Your task to perform on an android device: turn off airplane mode Image 0: 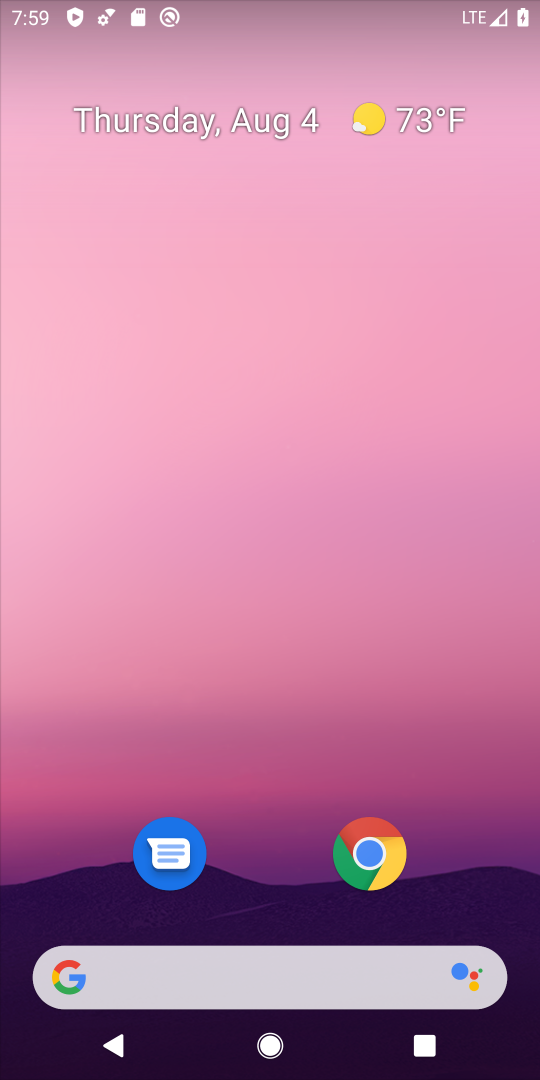
Step 0: drag from (321, 584) to (342, 433)
Your task to perform on an android device: turn off airplane mode Image 1: 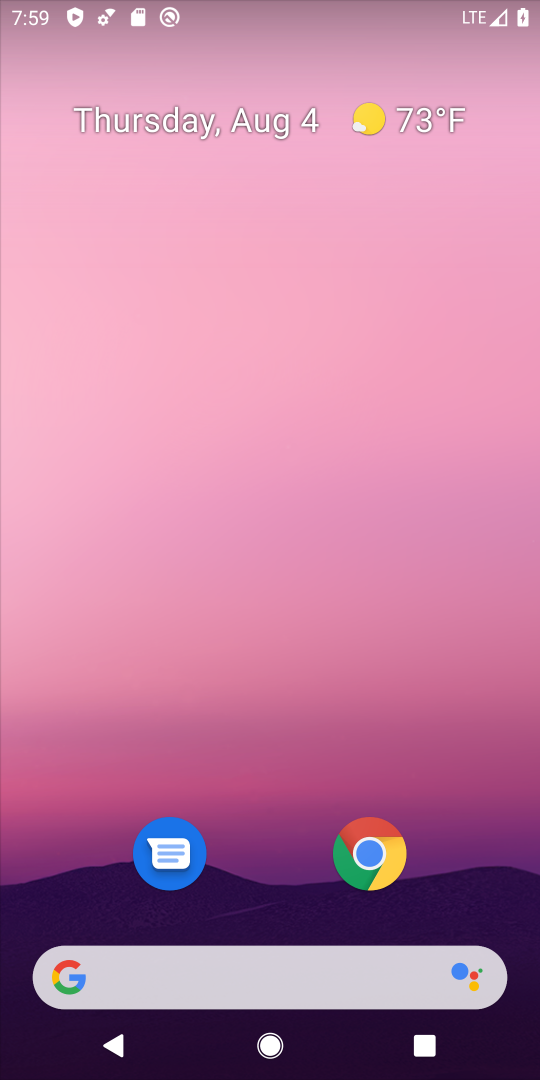
Step 1: drag from (290, 933) to (390, 167)
Your task to perform on an android device: turn off airplane mode Image 2: 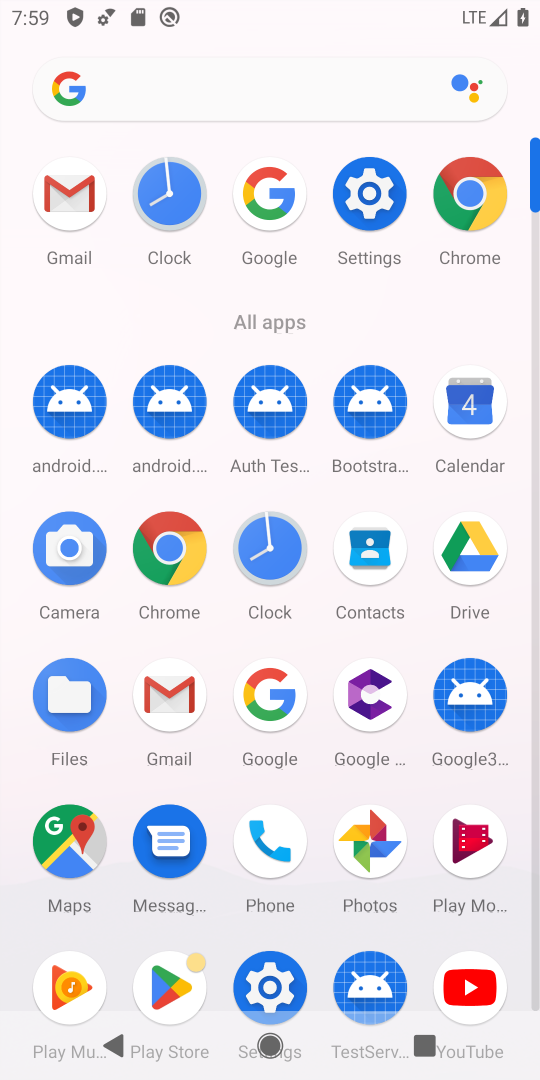
Step 2: click (344, 180)
Your task to perform on an android device: turn off airplane mode Image 3: 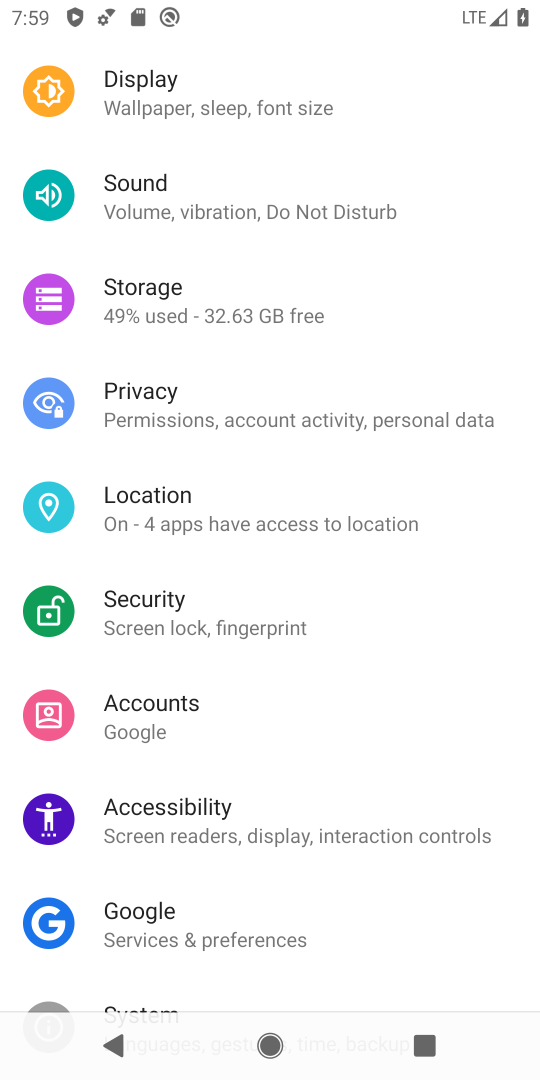
Step 3: drag from (238, 162) to (306, 613)
Your task to perform on an android device: turn off airplane mode Image 4: 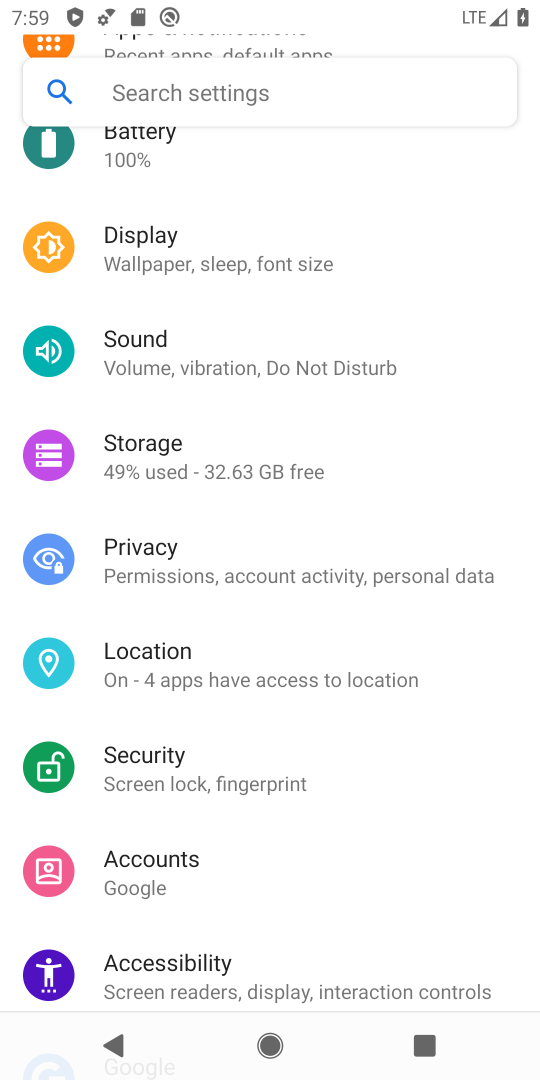
Step 4: drag from (212, 292) to (270, 680)
Your task to perform on an android device: turn off airplane mode Image 5: 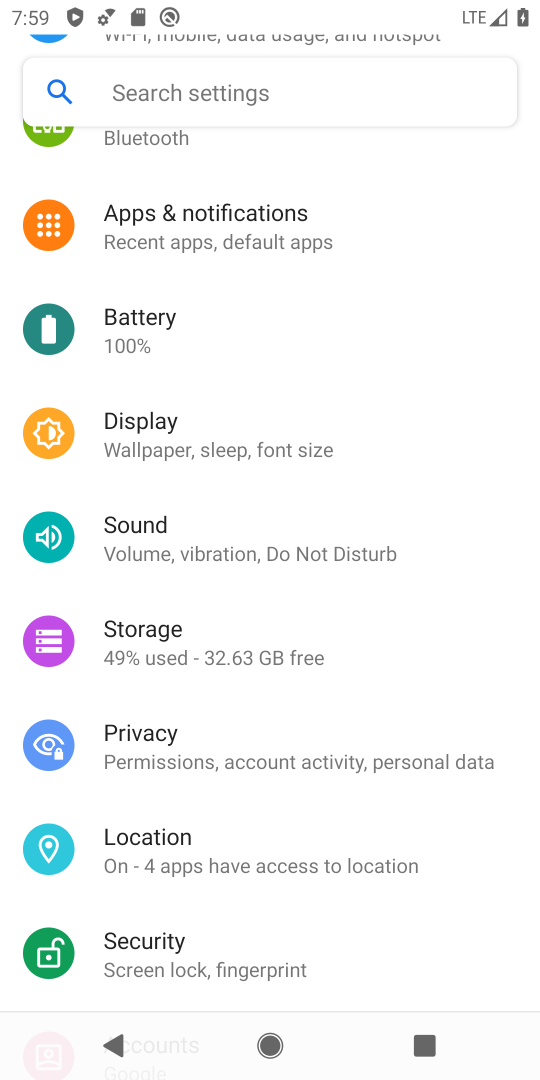
Step 5: click (233, 223)
Your task to perform on an android device: turn off airplane mode Image 6: 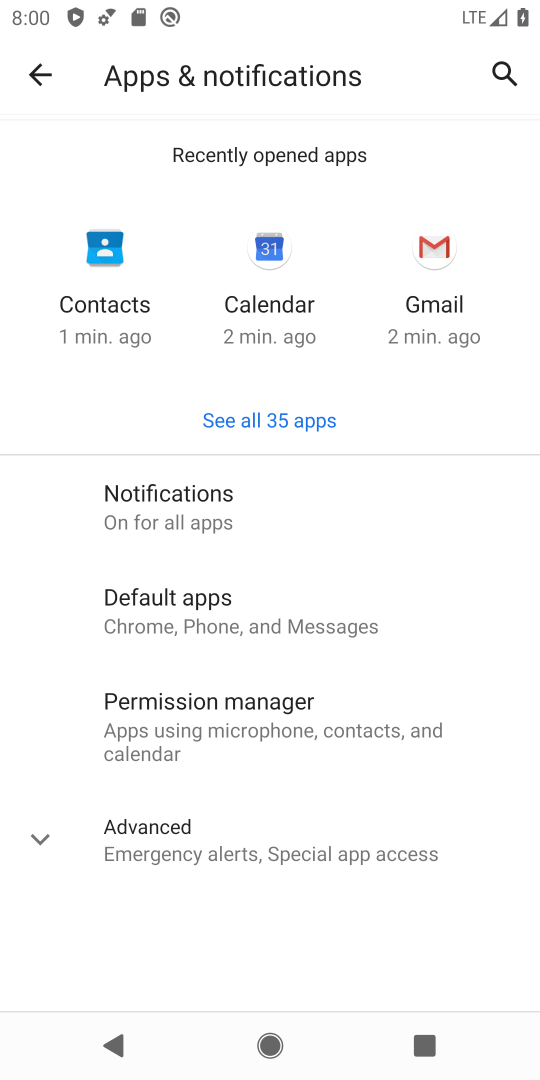
Step 6: task complete